Your task to perform on an android device: Show me popular videos on Youtube Image 0: 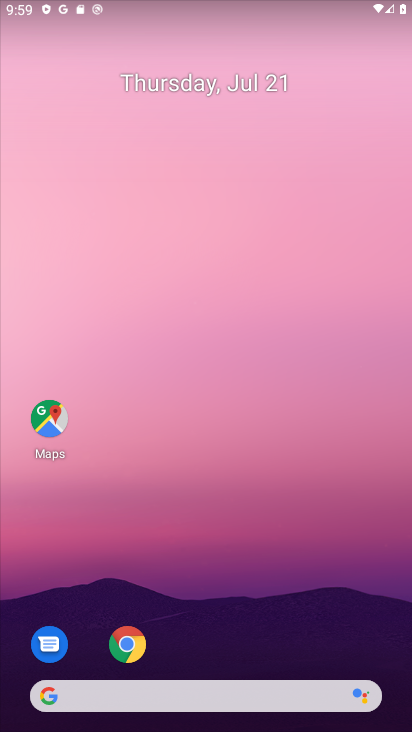
Step 0: press home button
Your task to perform on an android device: Show me popular videos on Youtube Image 1: 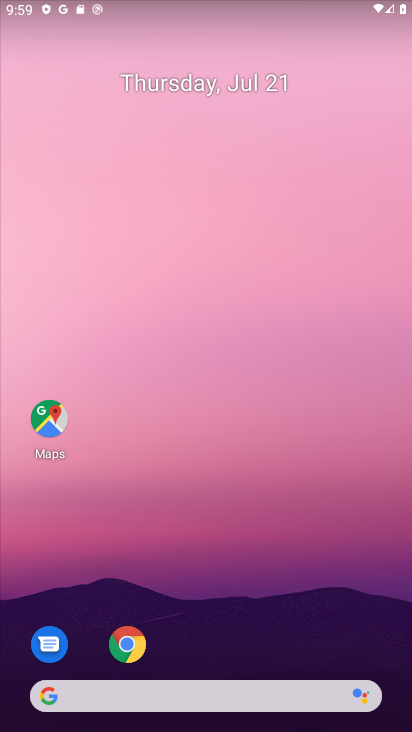
Step 1: drag from (200, 663) to (183, 50)
Your task to perform on an android device: Show me popular videos on Youtube Image 2: 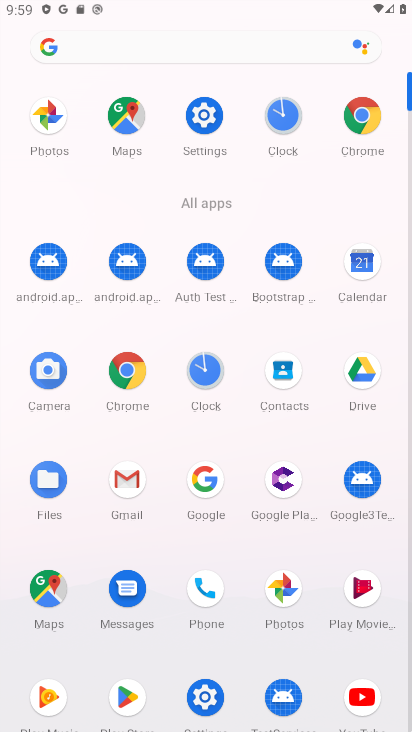
Step 2: click (359, 688)
Your task to perform on an android device: Show me popular videos on Youtube Image 3: 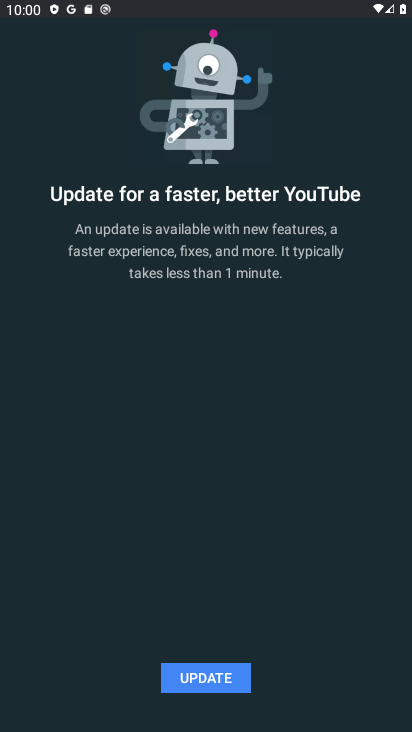
Step 3: click (203, 676)
Your task to perform on an android device: Show me popular videos on Youtube Image 4: 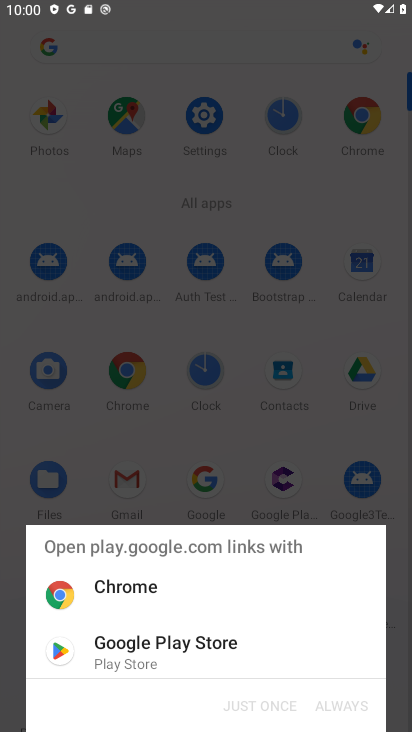
Step 4: click (167, 655)
Your task to perform on an android device: Show me popular videos on Youtube Image 5: 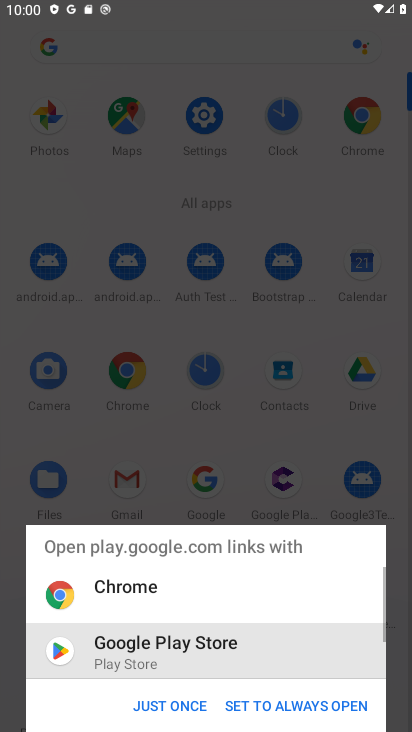
Step 5: click (177, 704)
Your task to perform on an android device: Show me popular videos on Youtube Image 6: 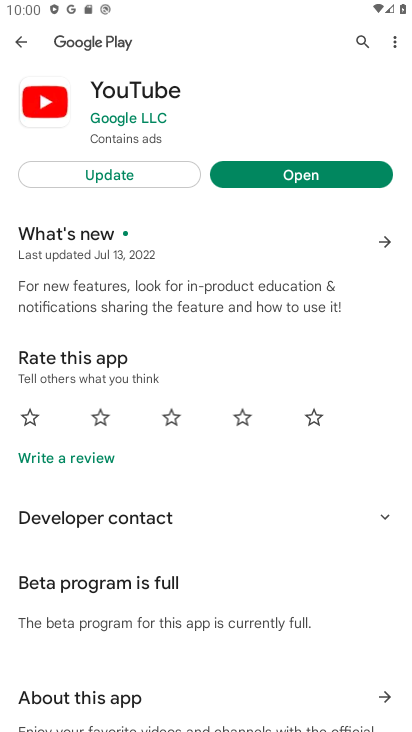
Step 6: click (118, 165)
Your task to perform on an android device: Show me popular videos on Youtube Image 7: 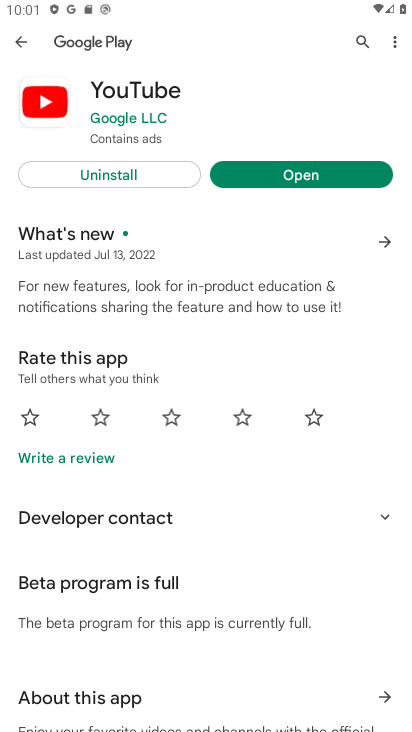
Step 7: click (300, 170)
Your task to perform on an android device: Show me popular videos on Youtube Image 8: 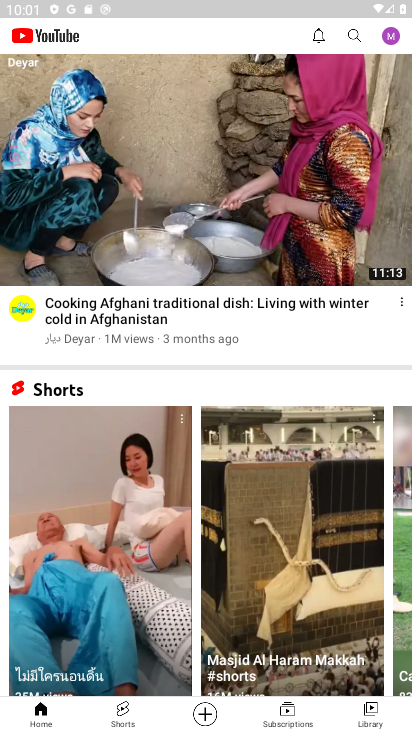
Step 8: drag from (157, 488) to (203, 62)
Your task to perform on an android device: Show me popular videos on Youtube Image 9: 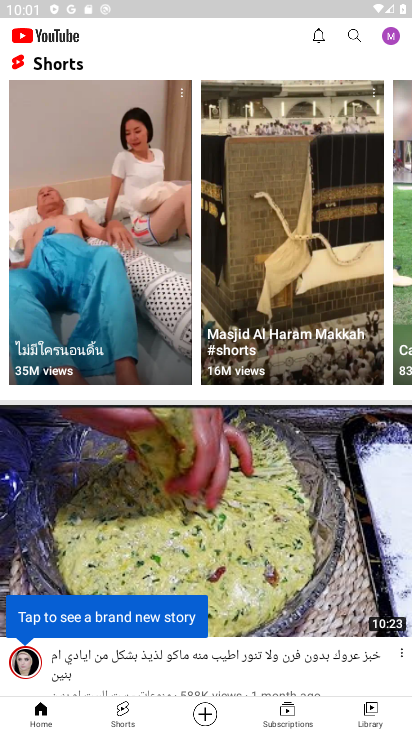
Step 9: drag from (209, 644) to (224, 118)
Your task to perform on an android device: Show me popular videos on Youtube Image 10: 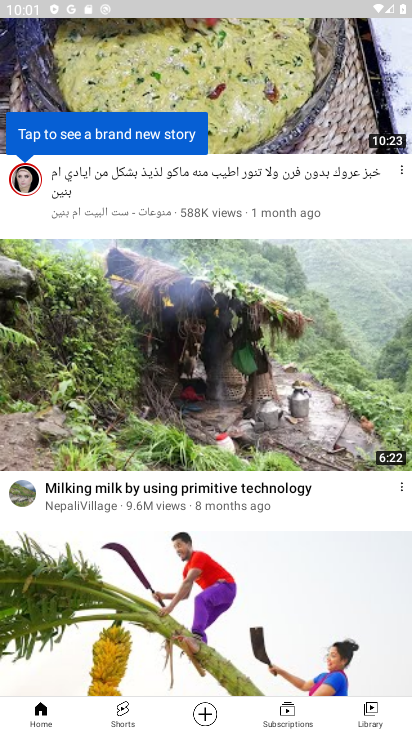
Step 10: drag from (231, 141) to (304, 658)
Your task to perform on an android device: Show me popular videos on Youtube Image 11: 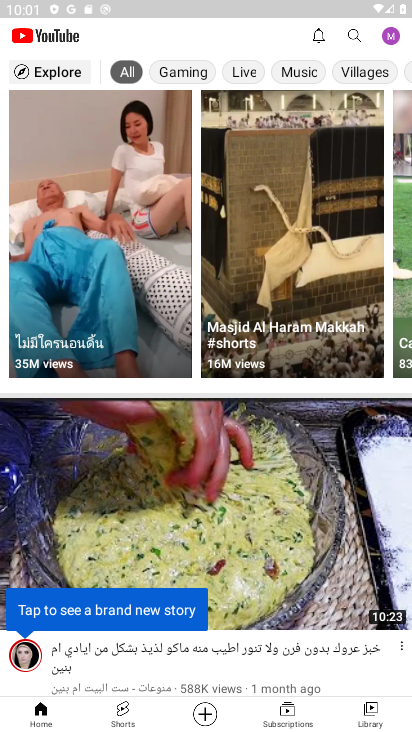
Step 11: click (42, 71)
Your task to perform on an android device: Show me popular videos on Youtube Image 12: 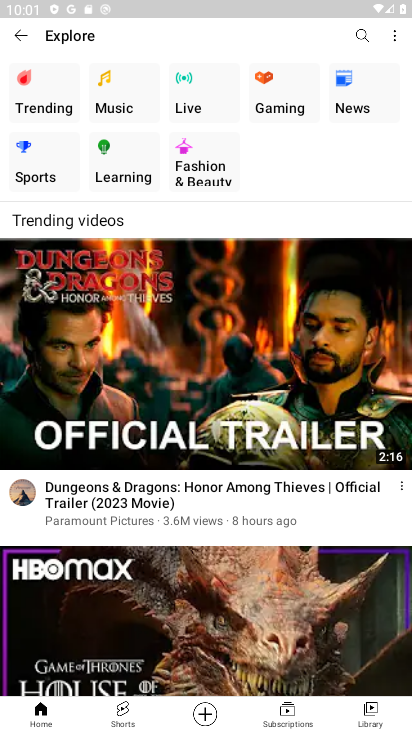
Step 12: click (34, 89)
Your task to perform on an android device: Show me popular videos on Youtube Image 13: 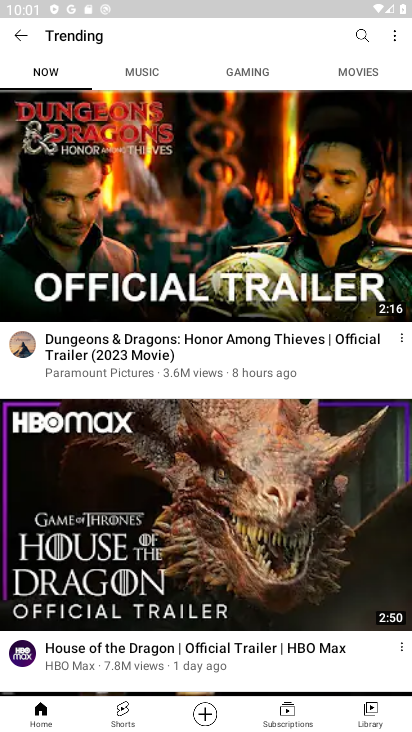
Step 13: task complete